Your task to perform on an android device: check storage Image 0: 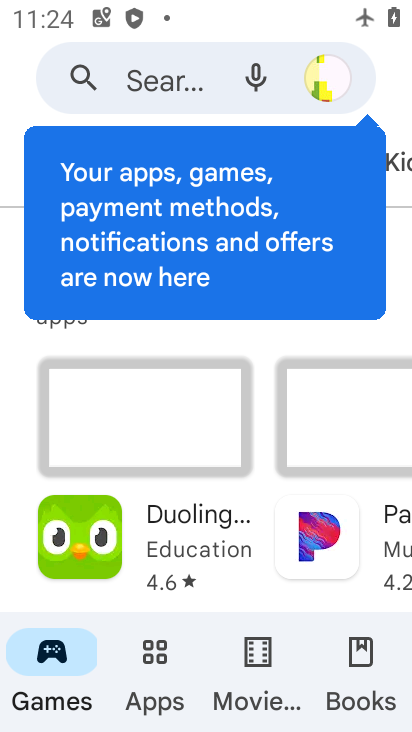
Step 0: press home button
Your task to perform on an android device: check storage Image 1: 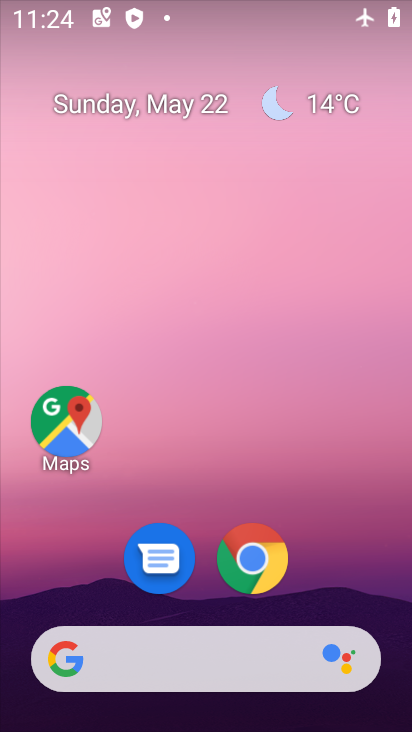
Step 1: drag from (327, 596) to (318, 19)
Your task to perform on an android device: check storage Image 2: 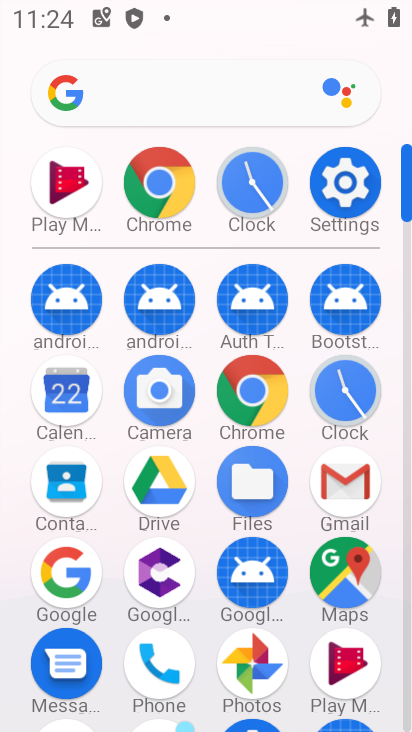
Step 2: click (341, 180)
Your task to perform on an android device: check storage Image 3: 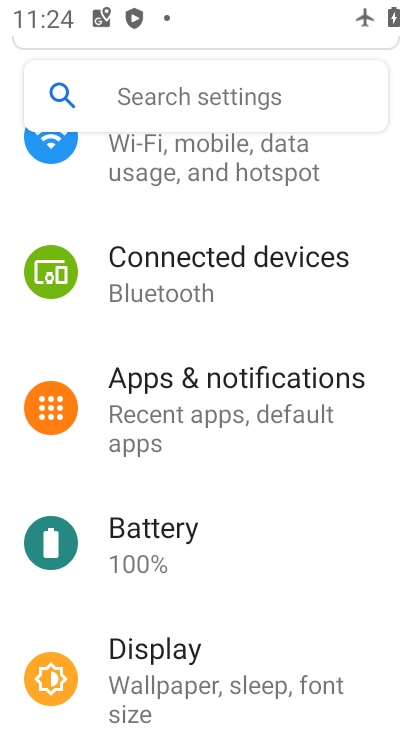
Step 3: drag from (287, 540) to (305, 146)
Your task to perform on an android device: check storage Image 4: 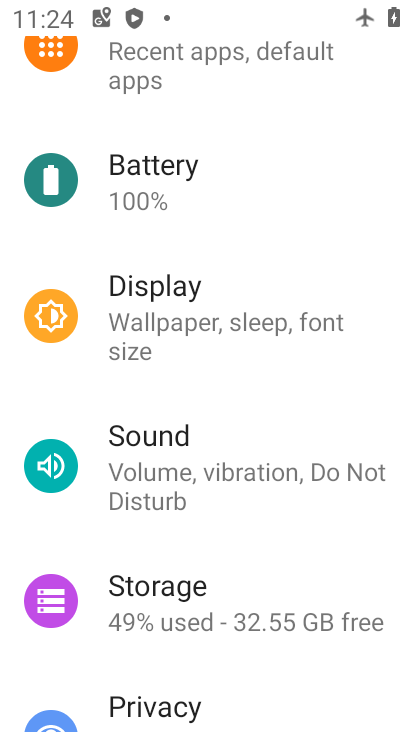
Step 4: click (135, 618)
Your task to perform on an android device: check storage Image 5: 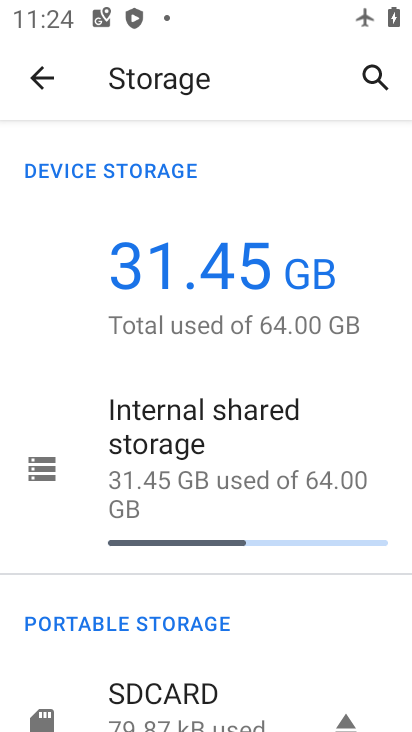
Step 5: drag from (223, 630) to (251, 481)
Your task to perform on an android device: check storage Image 6: 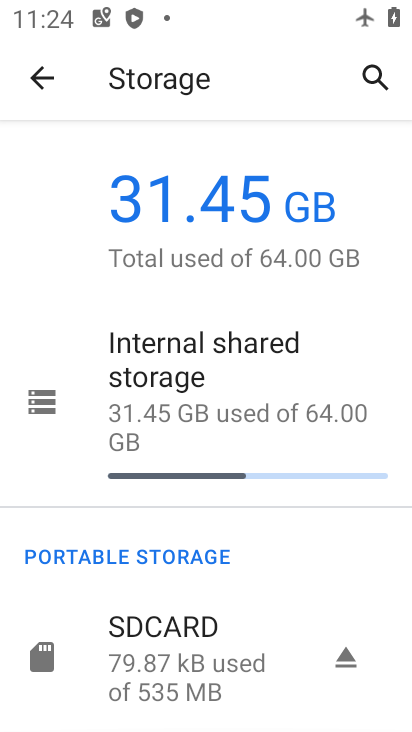
Step 6: click (258, 363)
Your task to perform on an android device: check storage Image 7: 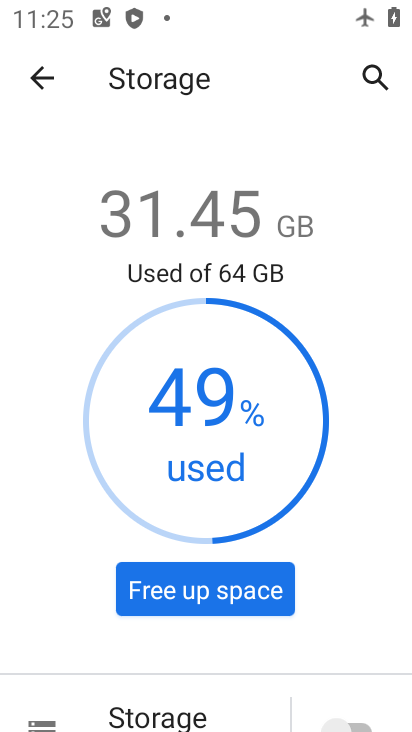
Step 7: task complete